Your task to perform on an android device: Open Chrome and go to the settings page Image 0: 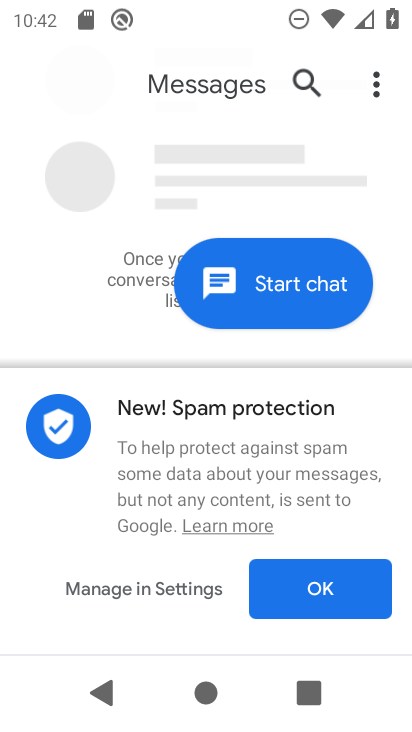
Step 0: press home button
Your task to perform on an android device: Open Chrome and go to the settings page Image 1: 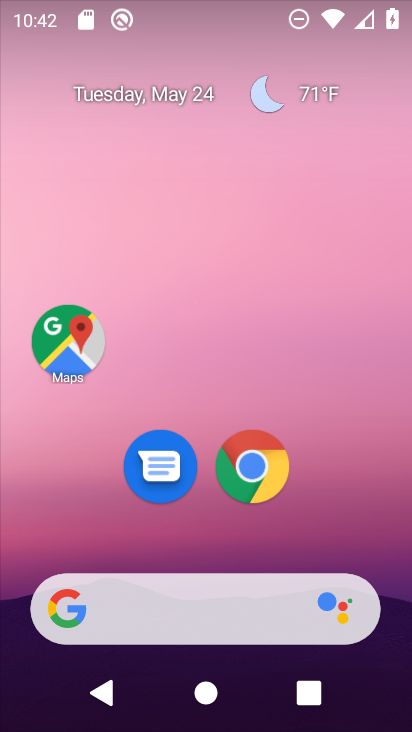
Step 1: click (230, 470)
Your task to perform on an android device: Open Chrome and go to the settings page Image 2: 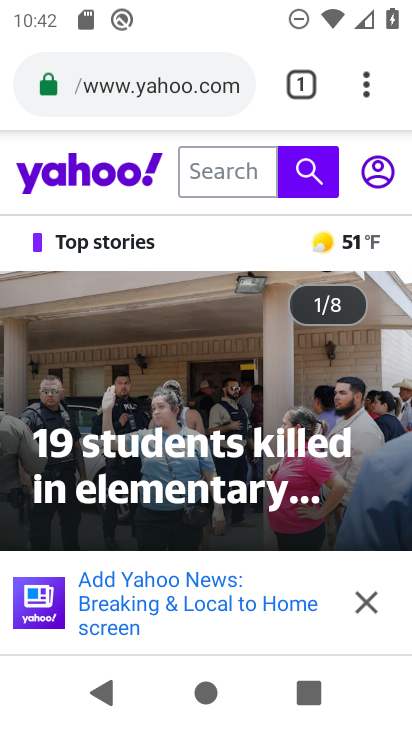
Step 2: click (370, 79)
Your task to perform on an android device: Open Chrome and go to the settings page Image 3: 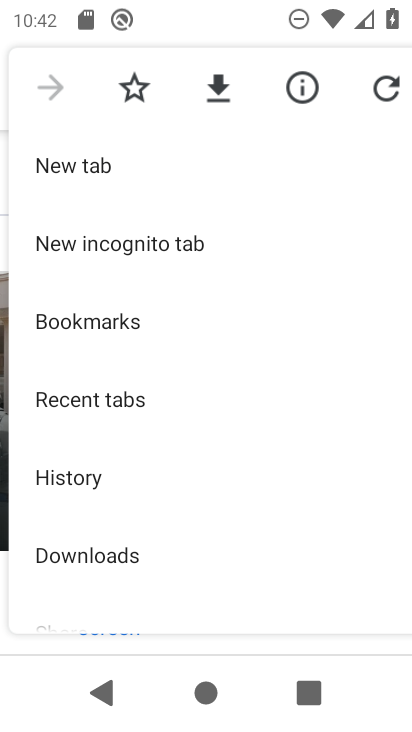
Step 3: drag from (184, 557) to (192, 99)
Your task to perform on an android device: Open Chrome and go to the settings page Image 4: 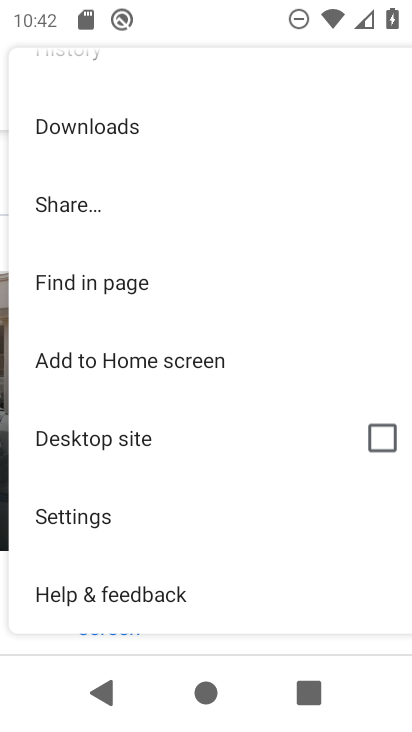
Step 4: drag from (125, 519) to (170, 119)
Your task to perform on an android device: Open Chrome and go to the settings page Image 5: 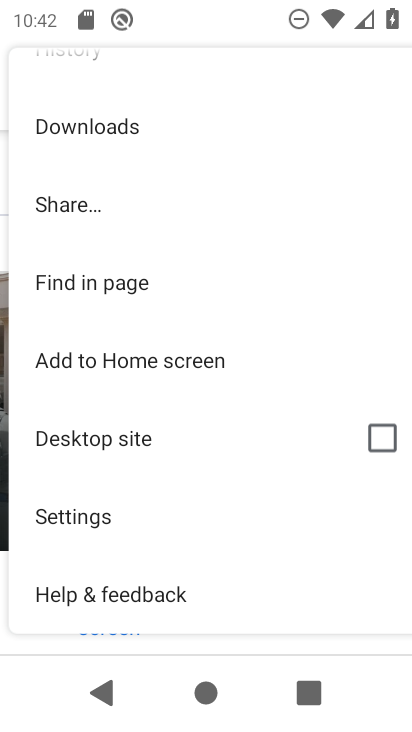
Step 5: drag from (119, 528) to (147, 366)
Your task to perform on an android device: Open Chrome and go to the settings page Image 6: 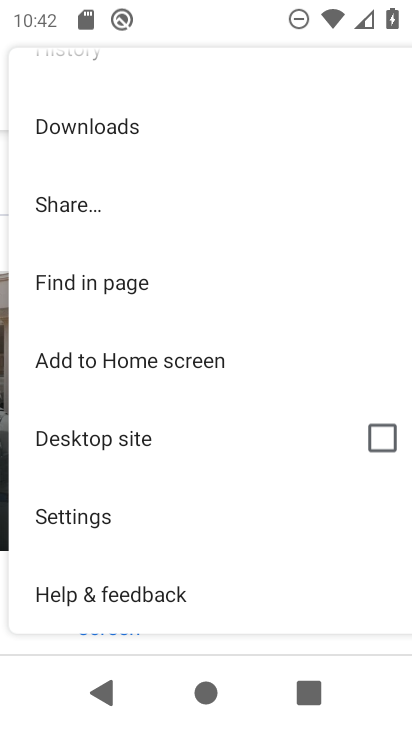
Step 6: click (98, 513)
Your task to perform on an android device: Open Chrome and go to the settings page Image 7: 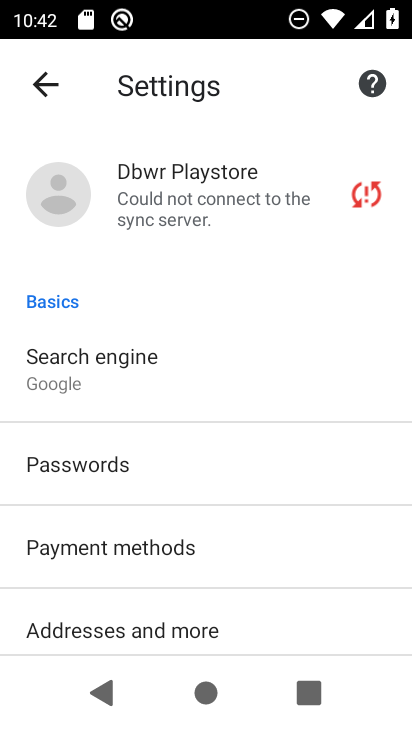
Step 7: task complete